Your task to perform on an android device: Open calendar and show me the fourth week of next month Image 0: 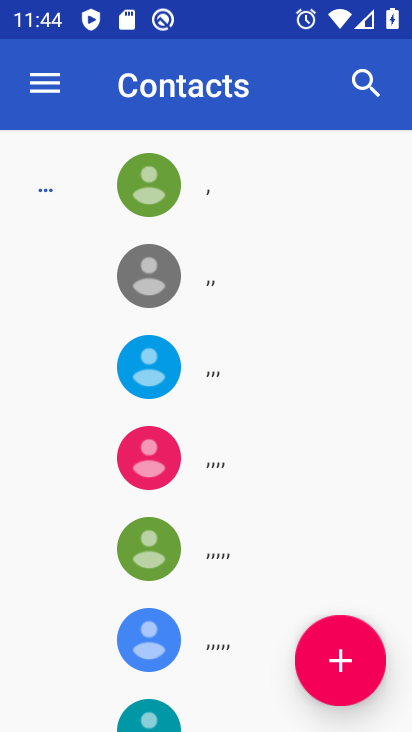
Step 0: press home button
Your task to perform on an android device: Open calendar and show me the fourth week of next month Image 1: 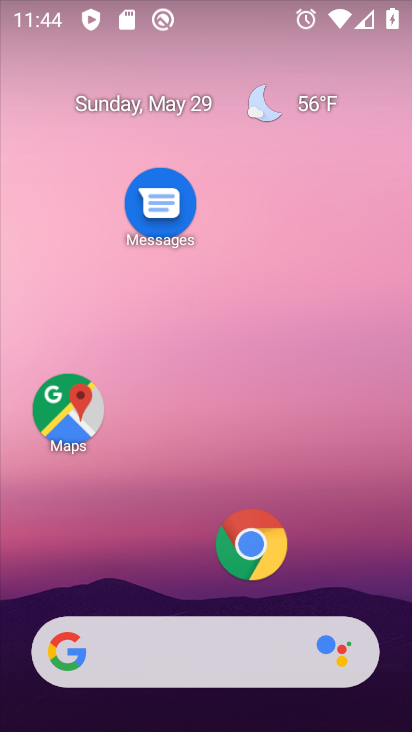
Step 1: drag from (199, 508) to (251, 133)
Your task to perform on an android device: Open calendar and show me the fourth week of next month Image 2: 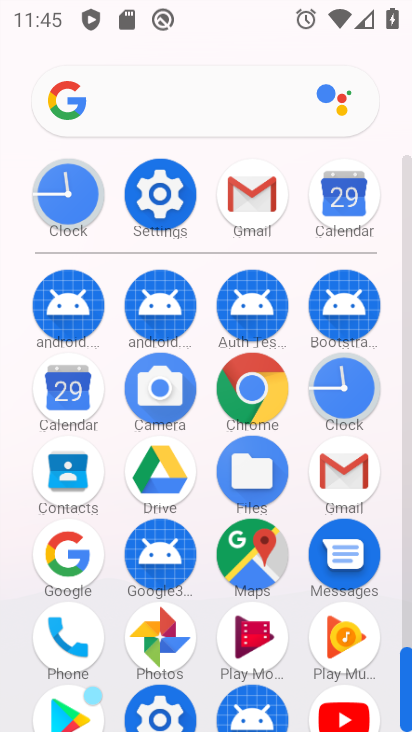
Step 2: click (52, 388)
Your task to perform on an android device: Open calendar and show me the fourth week of next month Image 3: 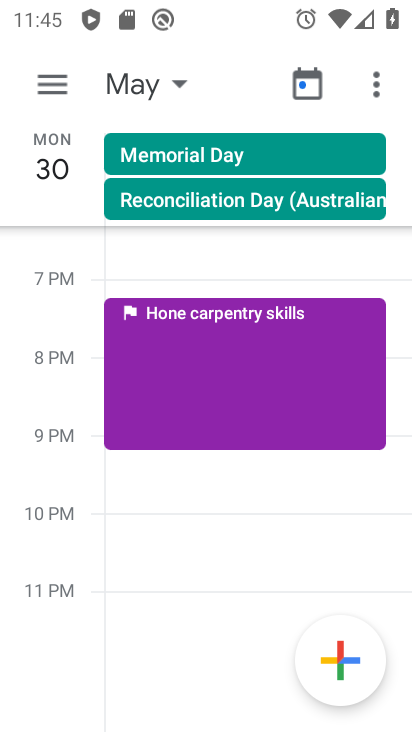
Step 3: click (175, 84)
Your task to perform on an android device: Open calendar and show me the fourth week of next month Image 4: 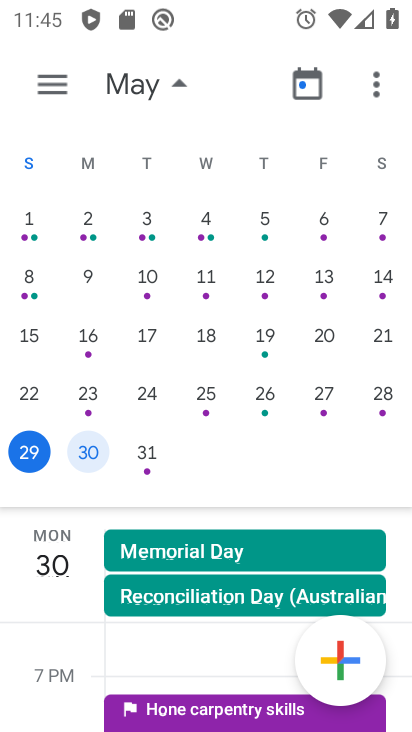
Step 4: drag from (383, 309) to (2, 336)
Your task to perform on an android device: Open calendar and show me the fourth week of next month Image 5: 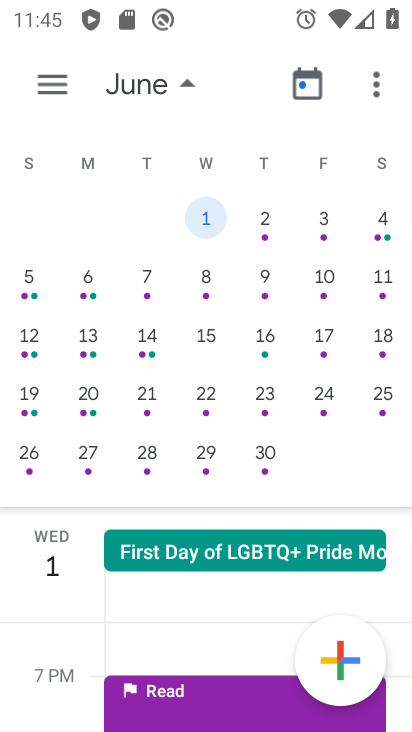
Step 5: click (27, 393)
Your task to perform on an android device: Open calendar and show me the fourth week of next month Image 6: 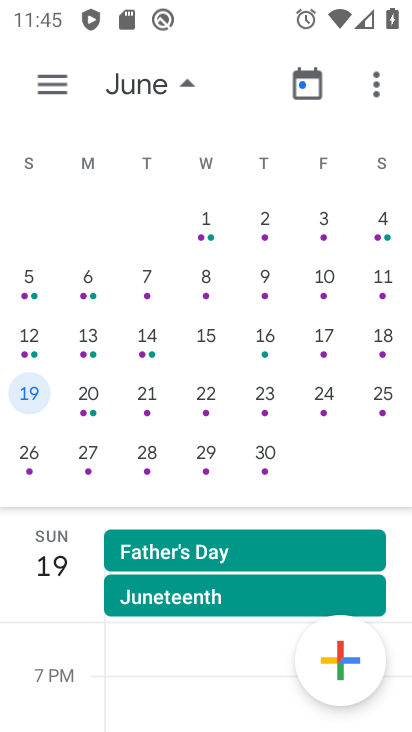
Step 6: click (188, 74)
Your task to perform on an android device: Open calendar and show me the fourth week of next month Image 7: 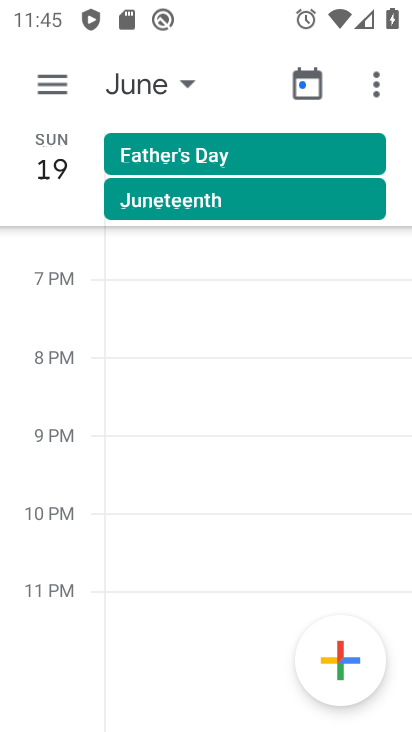
Step 7: click (81, 179)
Your task to perform on an android device: Open calendar and show me the fourth week of next month Image 8: 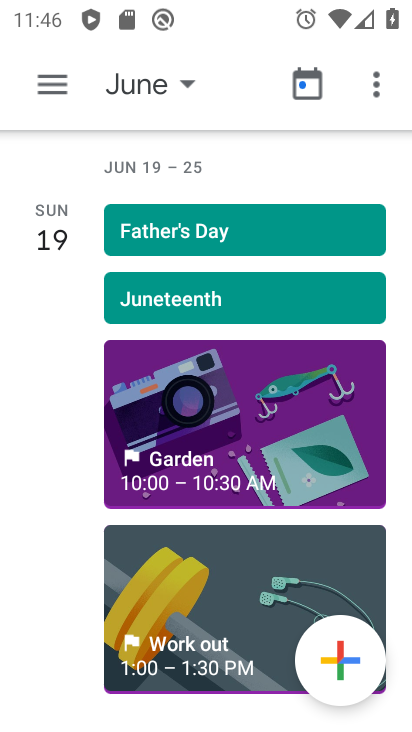
Step 8: task complete